Your task to perform on an android device: Open privacy settings Image 0: 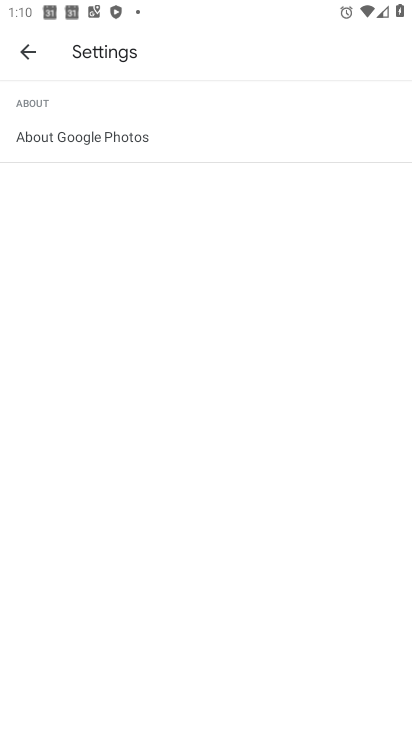
Step 0: press home button
Your task to perform on an android device: Open privacy settings Image 1: 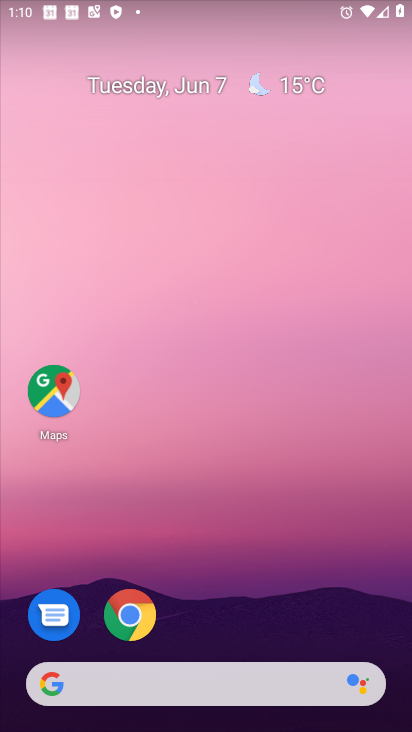
Step 1: drag from (181, 649) to (168, 76)
Your task to perform on an android device: Open privacy settings Image 2: 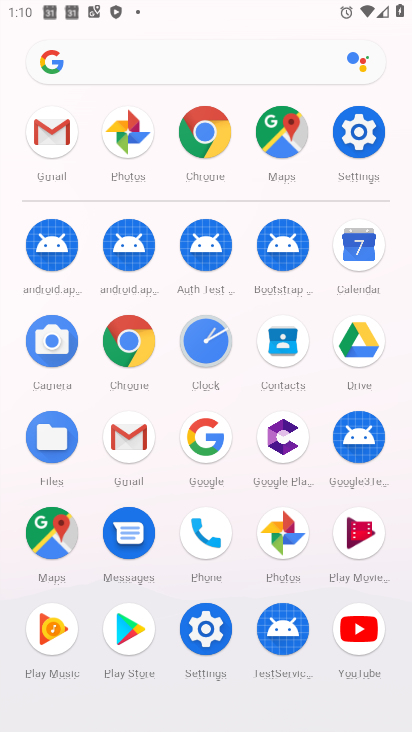
Step 2: click (342, 128)
Your task to perform on an android device: Open privacy settings Image 3: 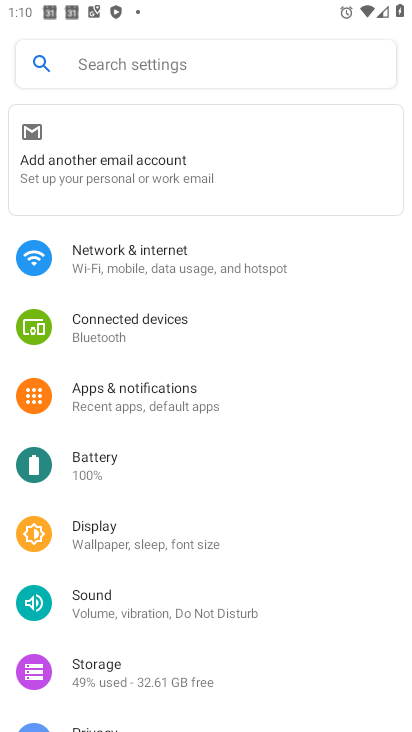
Step 3: drag from (115, 656) to (117, 322)
Your task to perform on an android device: Open privacy settings Image 4: 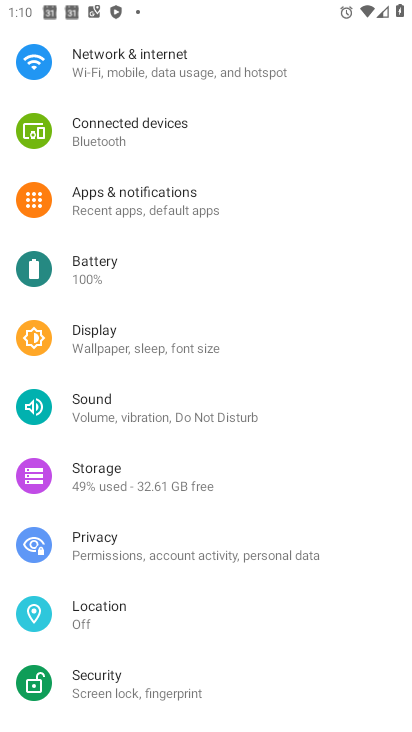
Step 4: click (83, 553)
Your task to perform on an android device: Open privacy settings Image 5: 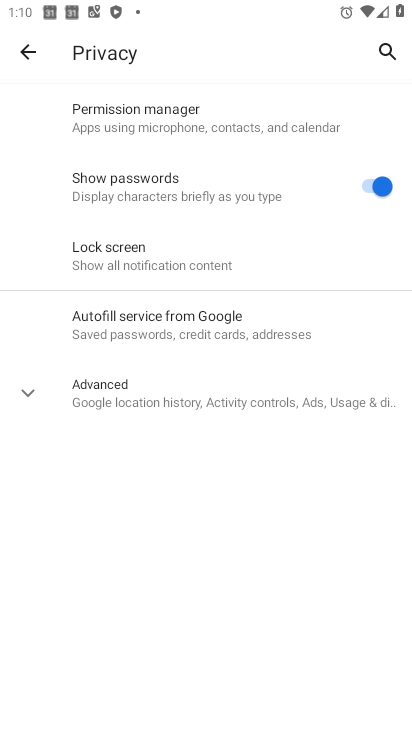
Step 5: task complete